Your task to perform on an android device: open app "DoorDash - Dasher" Image 0: 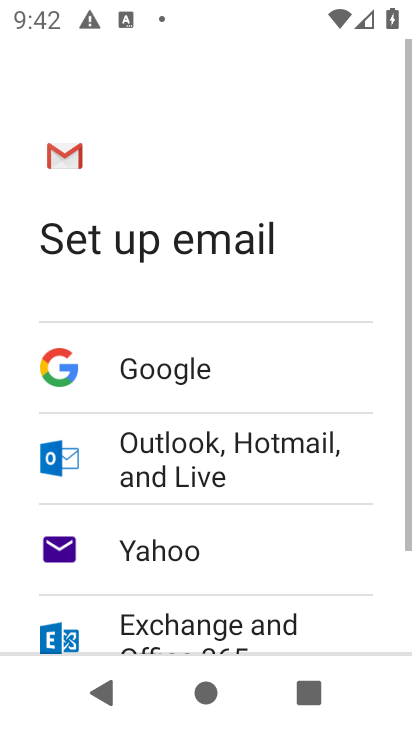
Step 0: press home button
Your task to perform on an android device: open app "DoorDash - Dasher" Image 1: 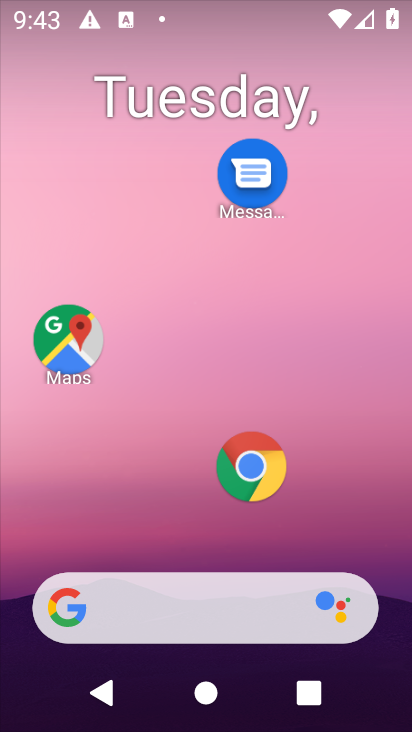
Step 1: drag from (141, 524) to (209, 10)
Your task to perform on an android device: open app "DoorDash - Dasher" Image 2: 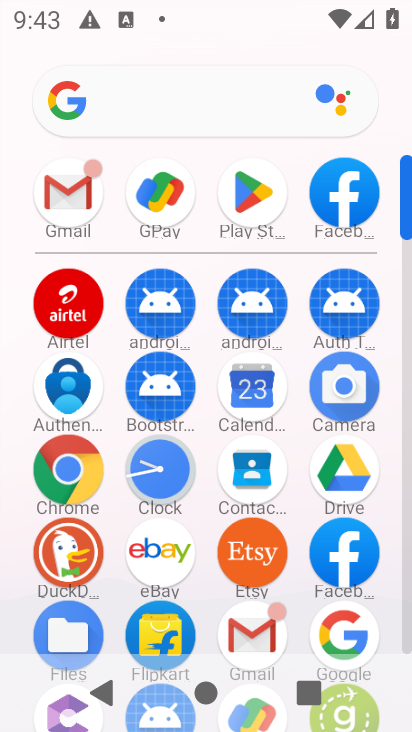
Step 2: click (236, 191)
Your task to perform on an android device: open app "DoorDash - Dasher" Image 3: 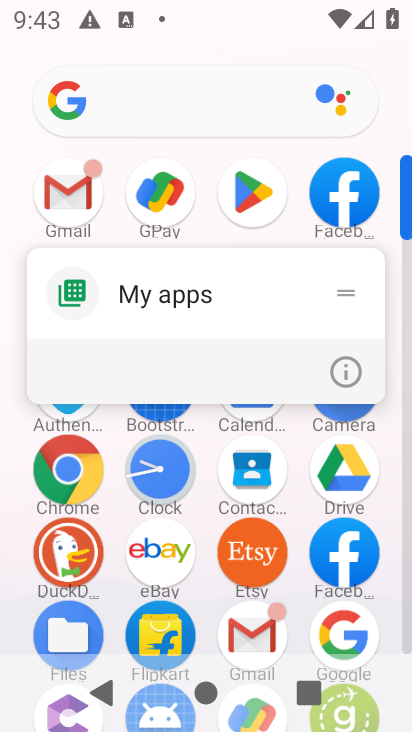
Step 3: click (275, 188)
Your task to perform on an android device: open app "DoorDash - Dasher" Image 4: 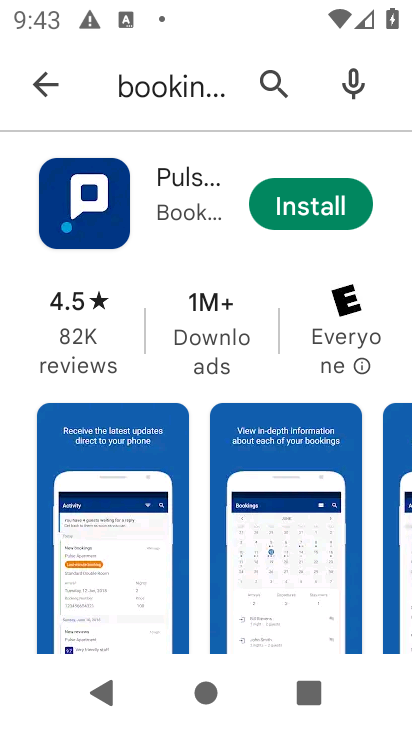
Step 4: click (272, 93)
Your task to perform on an android device: open app "DoorDash - Dasher" Image 5: 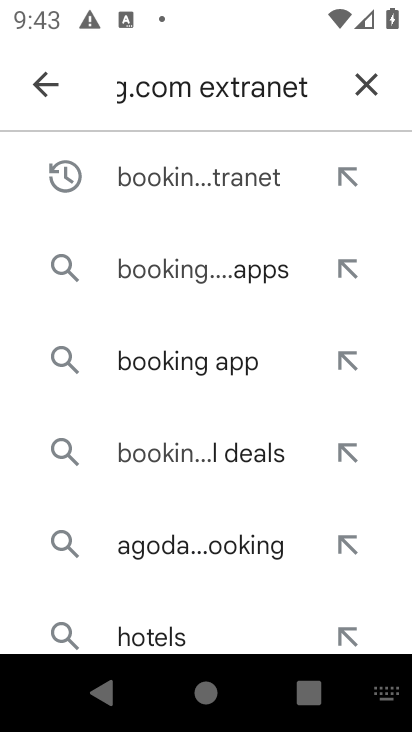
Step 5: click (381, 81)
Your task to perform on an android device: open app "DoorDash - Dasher" Image 6: 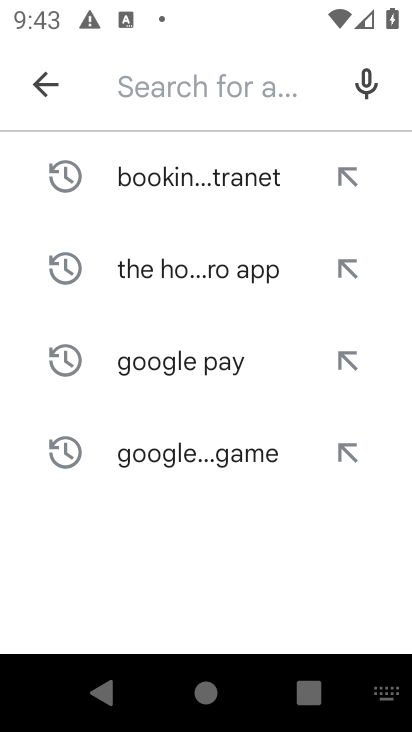
Step 6: click (147, 81)
Your task to perform on an android device: open app "DoorDash - Dasher" Image 7: 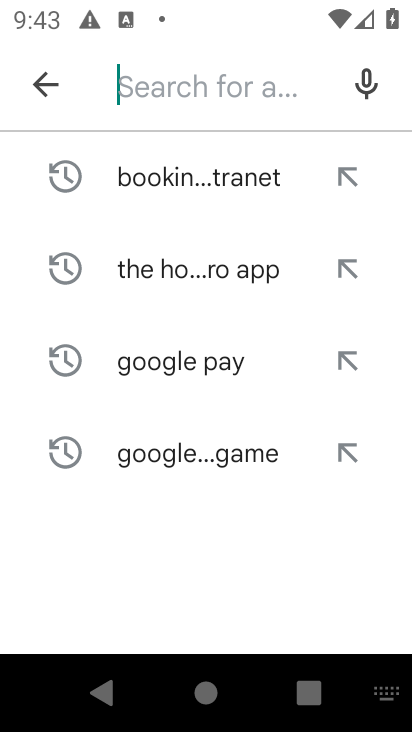
Step 7: type "DoorDash - Dasher"
Your task to perform on an android device: open app "DoorDash - Dasher" Image 8: 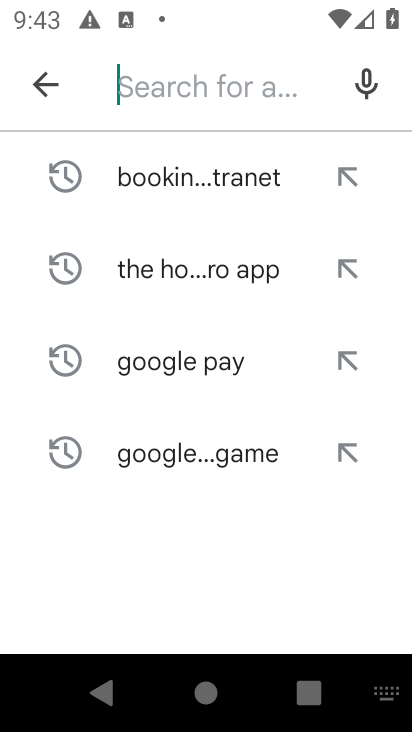
Step 8: click (151, 597)
Your task to perform on an android device: open app "DoorDash - Dasher" Image 9: 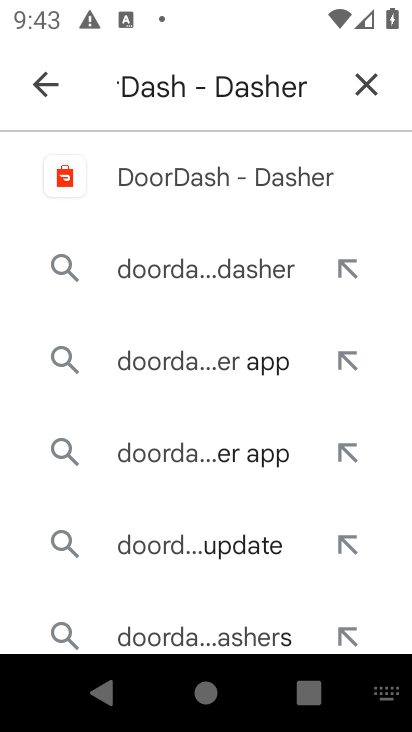
Step 9: click (245, 191)
Your task to perform on an android device: open app "DoorDash - Dasher" Image 10: 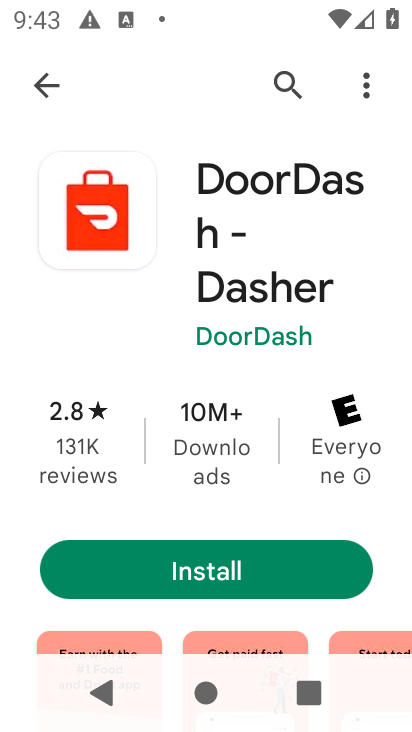
Step 10: task complete